Your task to perform on an android device: all mails in gmail Image 0: 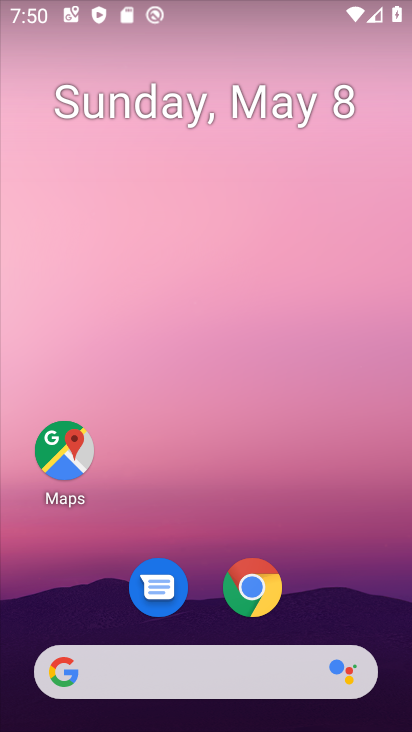
Step 0: drag from (199, 526) to (249, 9)
Your task to perform on an android device: all mails in gmail Image 1: 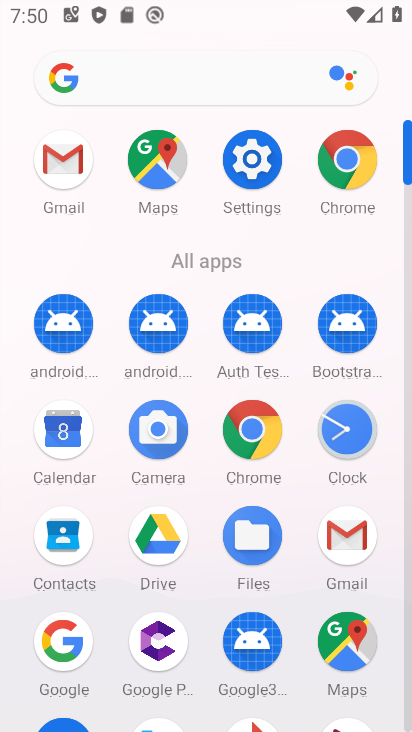
Step 1: click (58, 157)
Your task to perform on an android device: all mails in gmail Image 2: 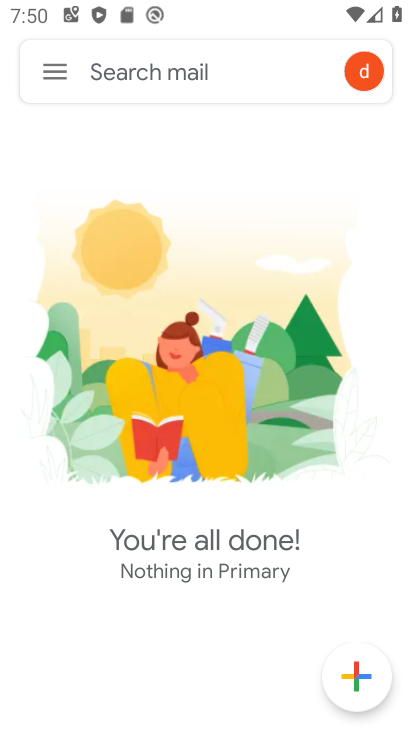
Step 2: click (57, 71)
Your task to perform on an android device: all mails in gmail Image 3: 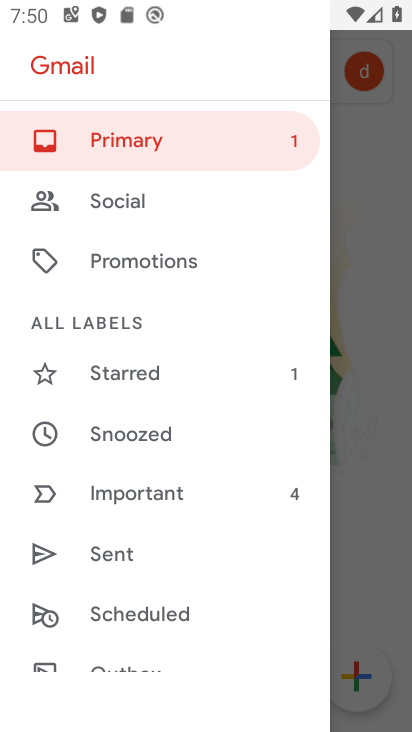
Step 3: drag from (134, 471) to (173, 387)
Your task to perform on an android device: all mails in gmail Image 4: 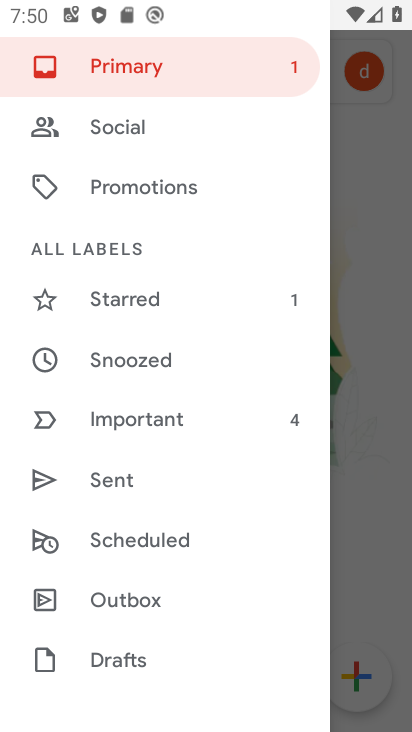
Step 4: drag from (127, 497) to (168, 410)
Your task to perform on an android device: all mails in gmail Image 5: 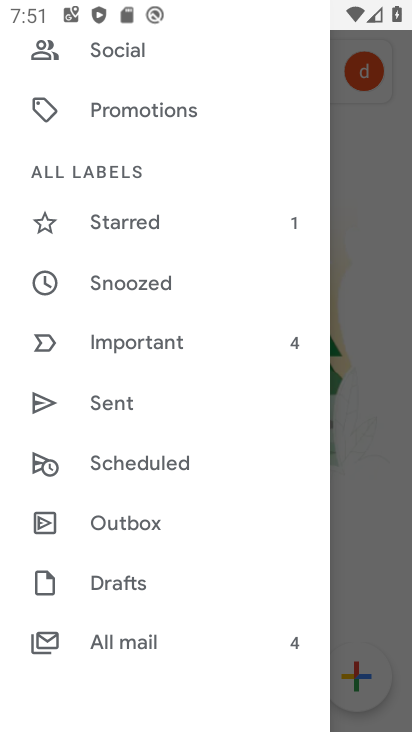
Step 5: drag from (122, 546) to (185, 442)
Your task to perform on an android device: all mails in gmail Image 6: 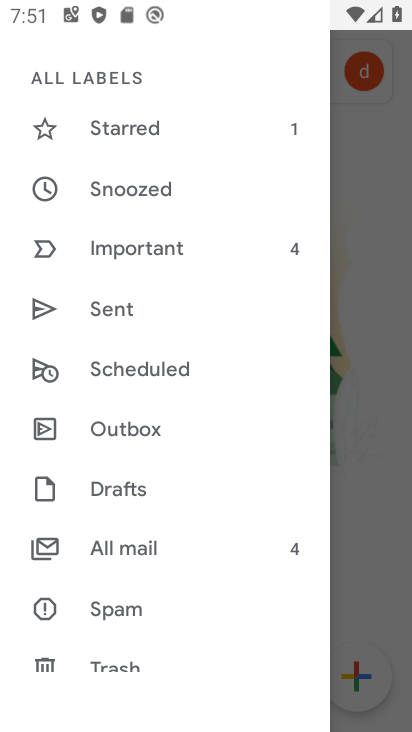
Step 6: click (140, 555)
Your task to perform on an android device: all mails in gmail Image 7: 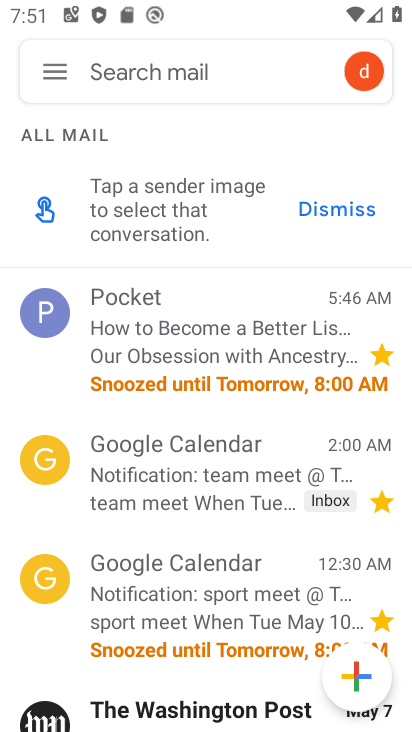
Step 7: task complete